Your task to perform on an android device: empty trash in google photos Image 0: 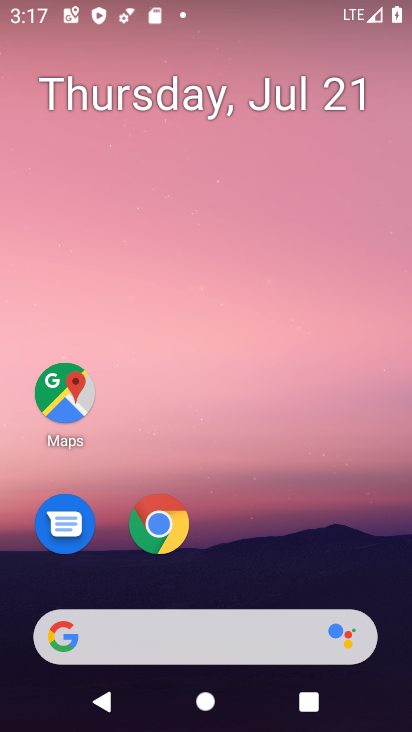
Step 0: drag from (253, 524) to (321, 7)
Your task to perform on an android device: empty trash in google photos Image 1: 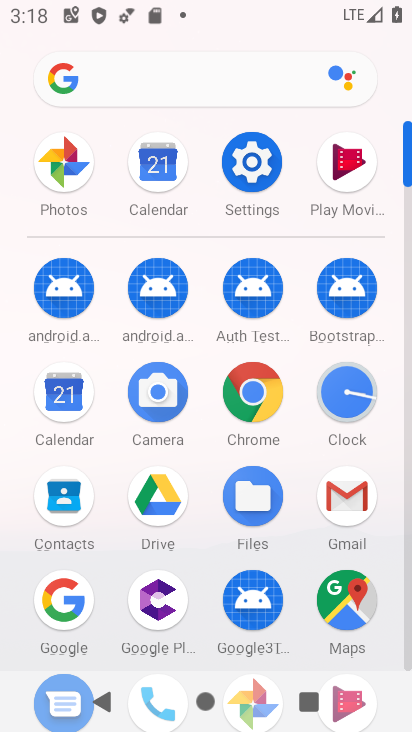
Step 1: click (65, 164)
Your task to perform on an android device: empty trash in google photos Image 2: 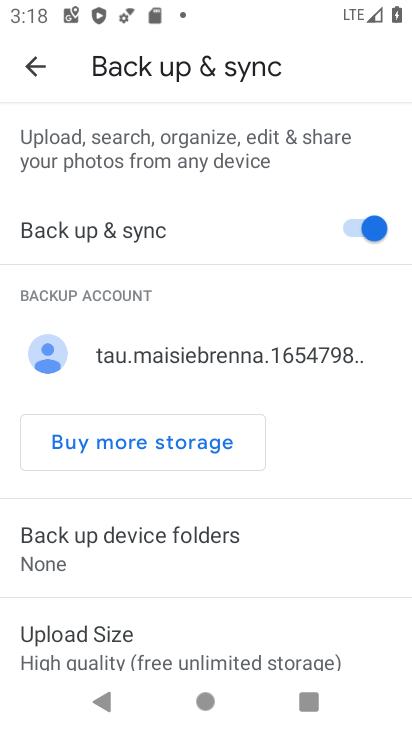
Step 2: click (38, 62)
Your task to perform on an android device: empty trash in google photos Image 3: 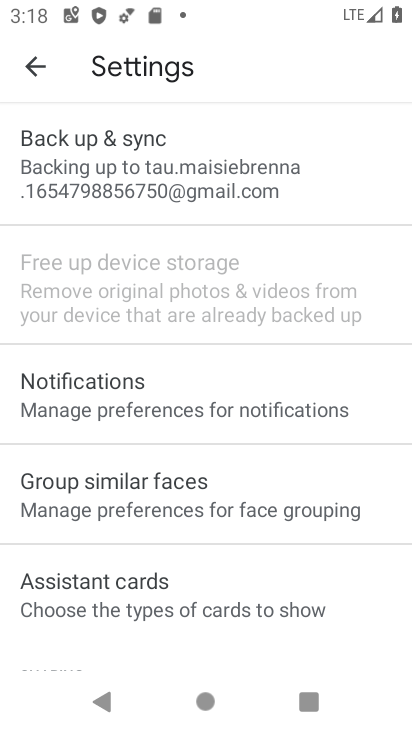
Step 3: click (40, 59)
Your task to perform on an android device: empty trash in google photos Image 4: 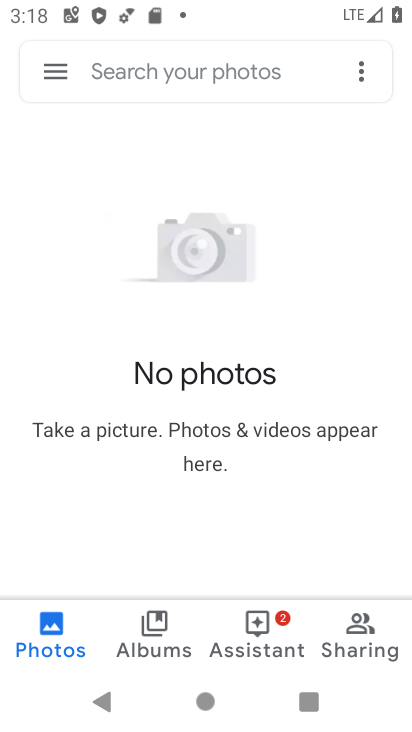
Step 4: click (57, 76)
Your task to perform on an android device: empty trash in google photos Image 5: 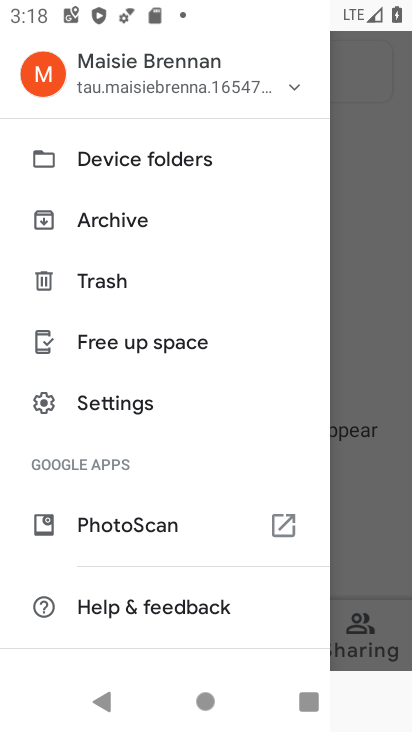
Step 5: click (98, 272)
Your task to perform on an android device: empty trash in google photos Image 6: 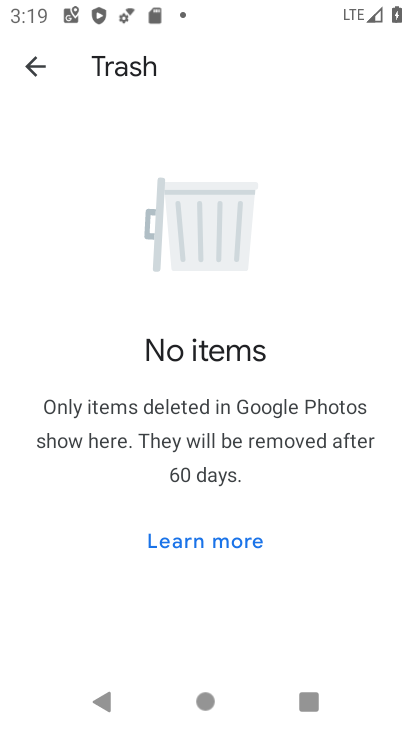
Step 6: task complete